Your task to perform on an android device: Go to calendar. Show me events next week Image 0: 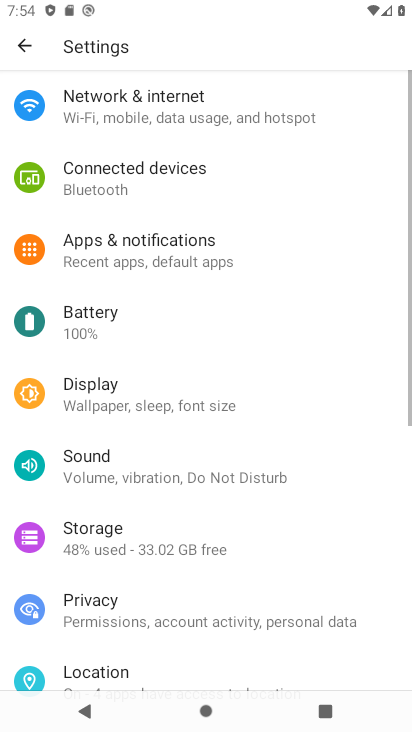
Step 0: press home button
Your task to perform on an android device: Go to calendar. Show me events next week Image 1: 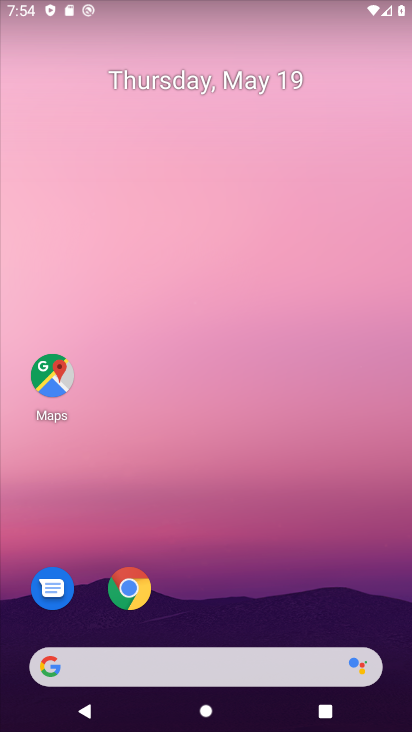
Step 1: drag from (244, 632) to (222, 257)
Your task to perform on an android device: Go to calendar. Show me events next week Image 2: 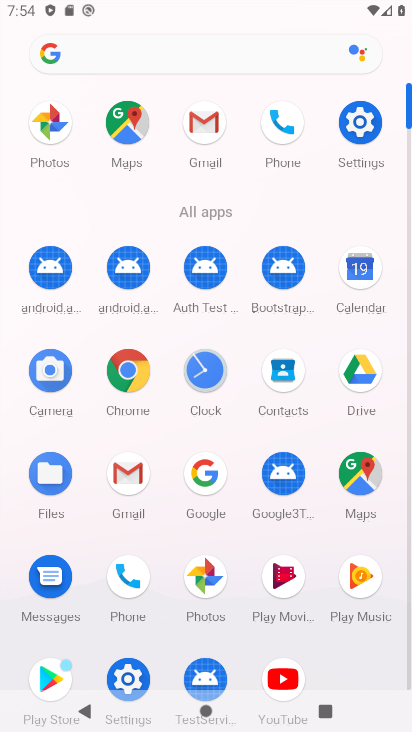
Step 2: click (370, 275)
Your task to perform on an android device: Go to calendar. Show me events next week Image 3: 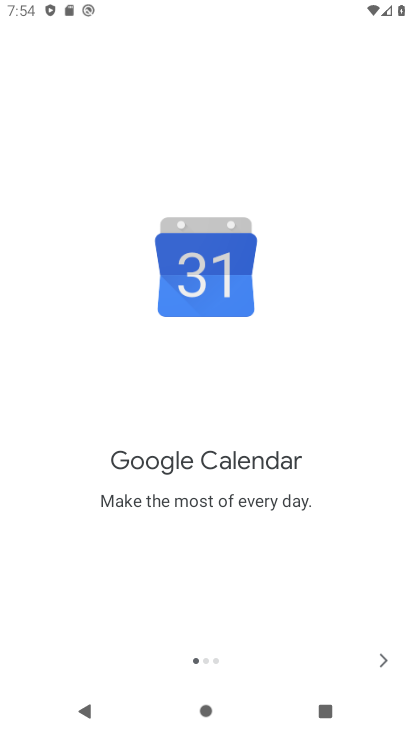
Step 3: click (376, 662)
Your task to perform on an android device: Go to calendar. Show me events next week Image 4: 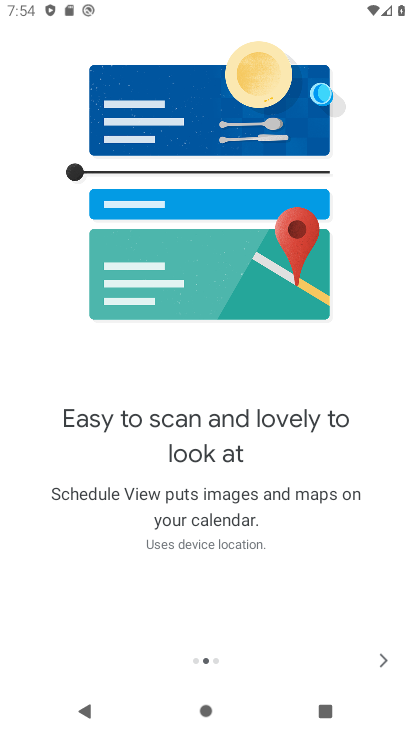
Step 4: click (376, 662)
Your task to perform on an android device: Go to calendar. Show me events next week Image 5: 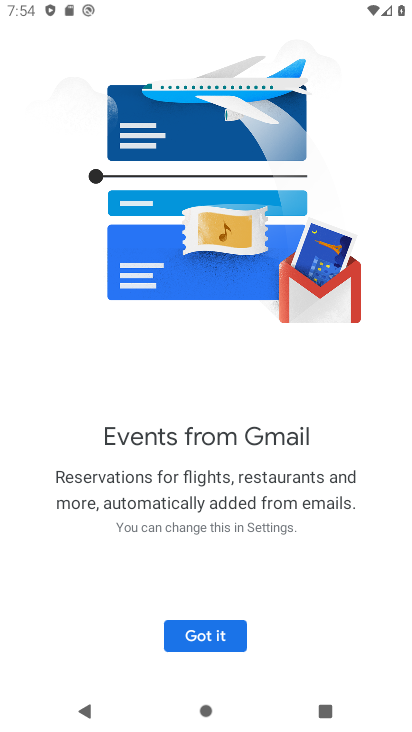
Step 5: click (224, 625)
Your task to perform on an android device: Go to calendar. Show me events next week Image 6: 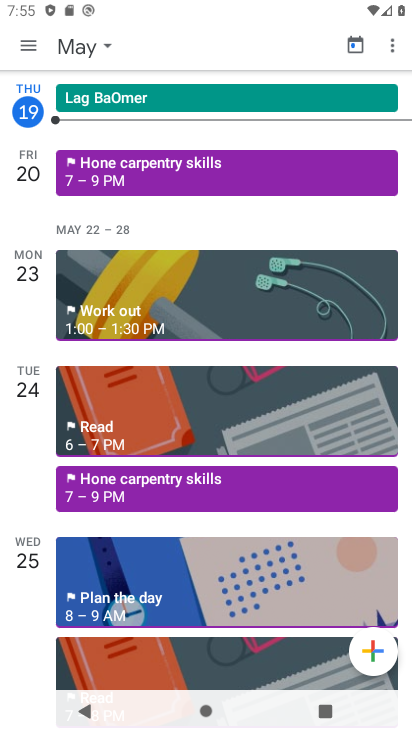
Step 6: click (31, 40)
Your task to perform on an android device: Go to calendar. Show me events next week Image 7: 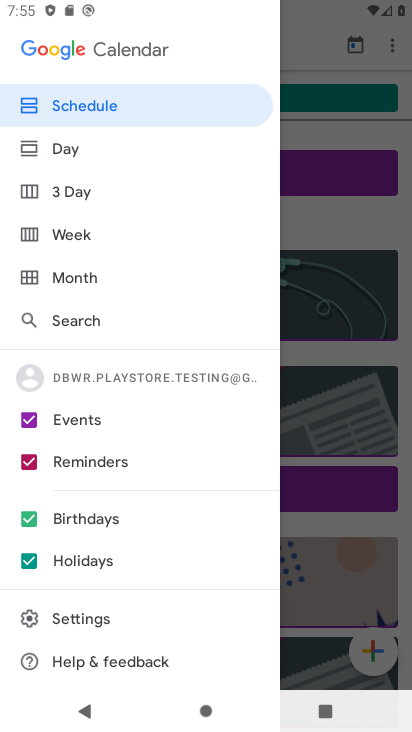
Step 7: click (92, 292)
Your task to perform on an android device: Go to calendar. Show me events next week Image 8: 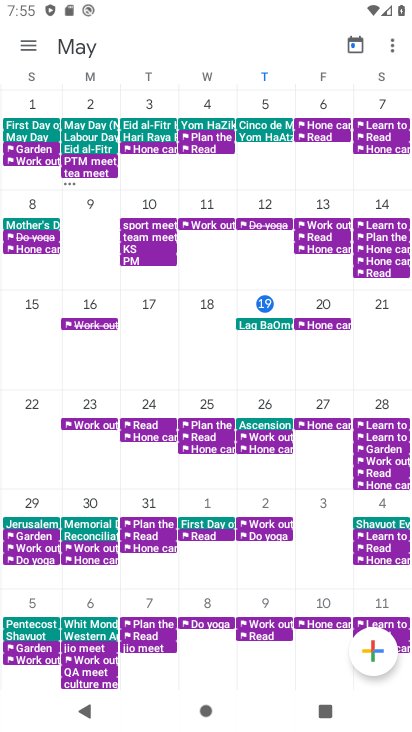
Step 8: click (326, 310)
Your task to perform on an android device: Go to calendar. Show me events next week Image 9: 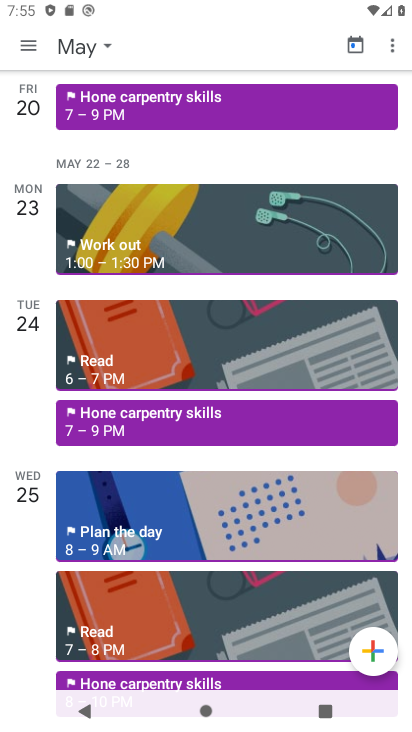
Step 9: click (13, 45)
Your task to perform on an android device: Go to calendar. Show me events next week Image 10: 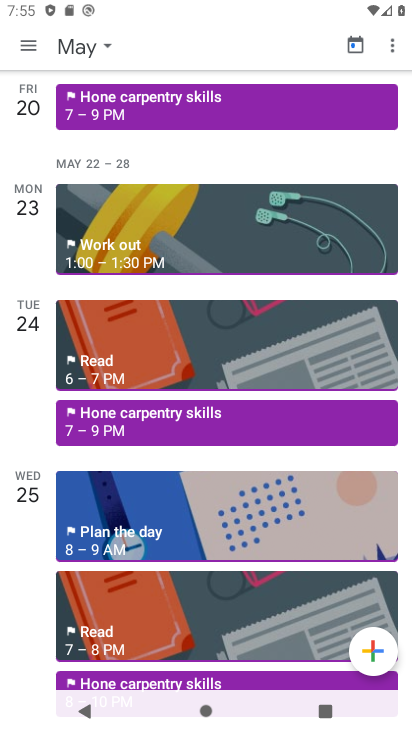
Step 10: task complete